Your task to perform on an android device: Do I have any events this weekend? Image 0: 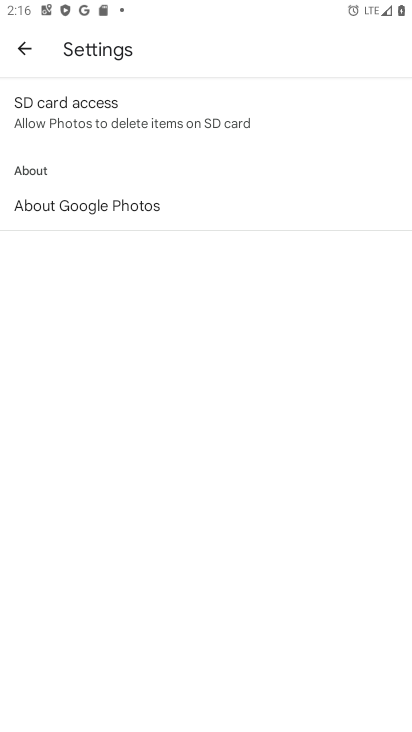
Step 0: press home button
Your task to perform on an android device: Do I have any events this weekend? Image 1: 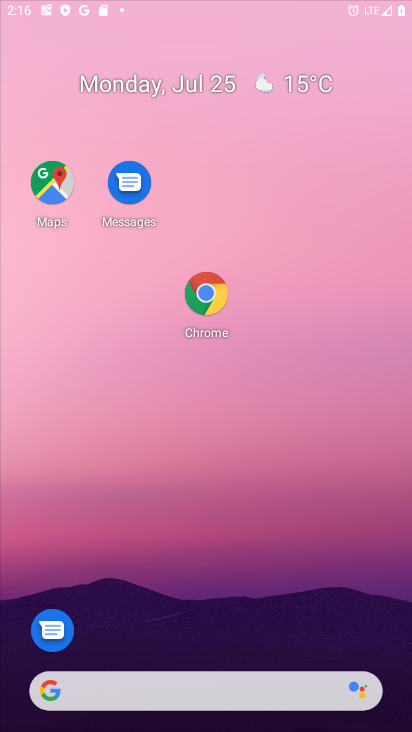
Step 1: drag from (304, 497) to (321, 210)
Your task to perform on an android device: Do I have any events this weekend? Image 2: 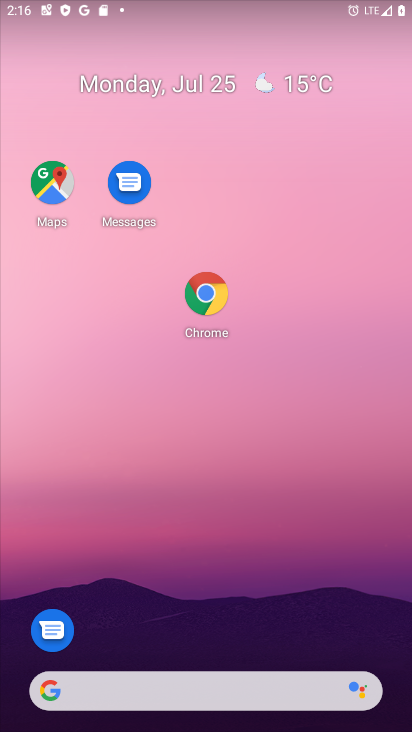
Step 2: click (312, 614)
Your task to perform on an android device: Do I have any events this weekend? Image 3: 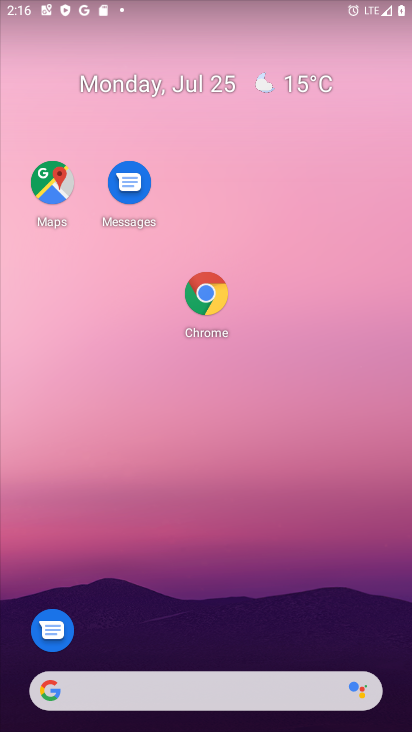
Step 3: drag from (240, 592) to (356, 1)
Your task to perform on an android device: Do I have any events this weekend? Image 4: 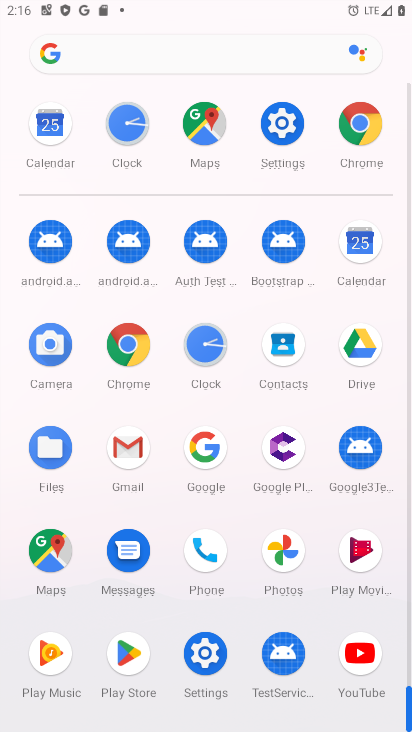
Step 4: click (361, 234)
Your task to perform on an android device: Do I have any events this weekend? Image 5: 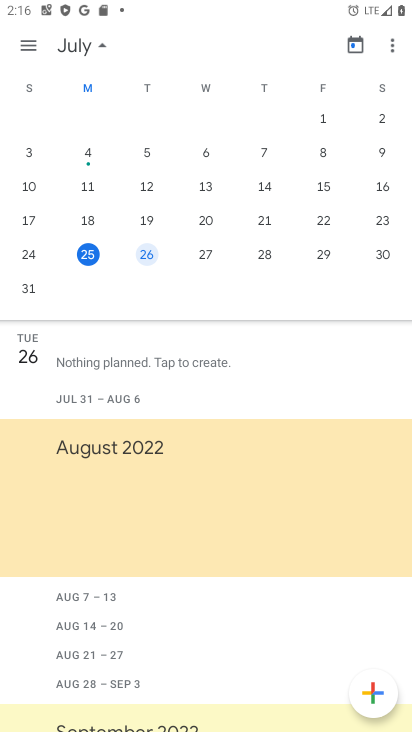
Step 5: click (20, 285)
Your task to perform on an android device: Do I have any events this weekend? Image 6: 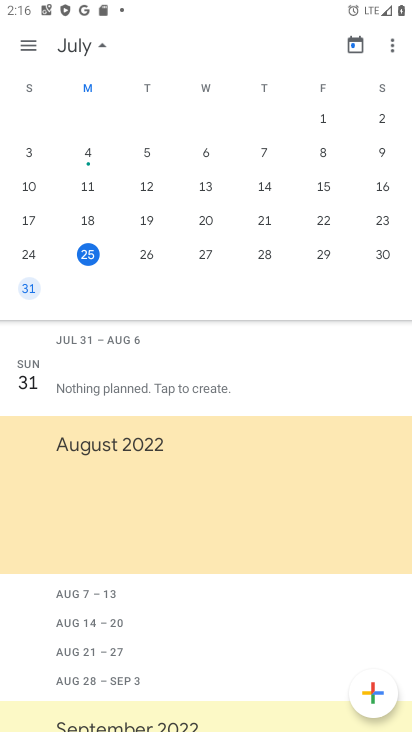
Step 6: task complete